Your task to perform on an android device: Open Chrome and go to settings Image 0: 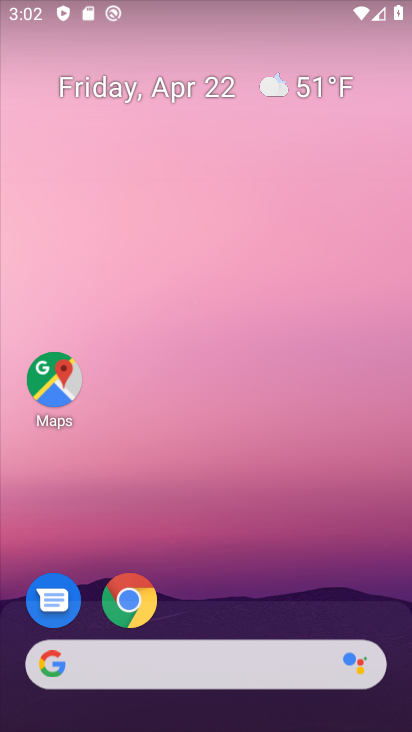
Step 0: drag from (159, 78) to (149, 21)
Your task to perform on an android device: Open Chrome and go to settings Image 1: 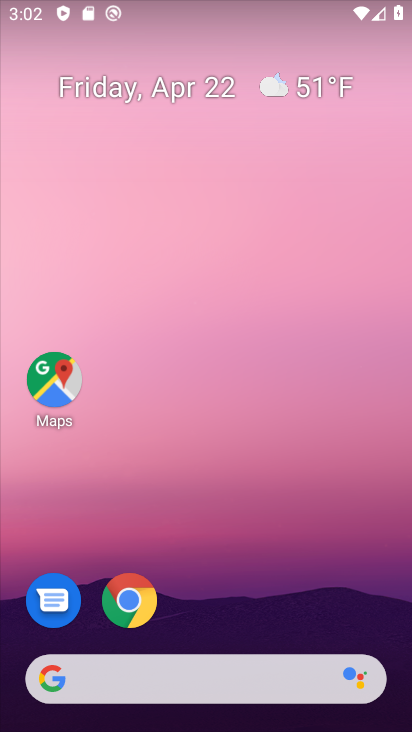
Step 1: click (110, 8)
Your task to perform on an android device: Open Chrome and go to settings Image 2: 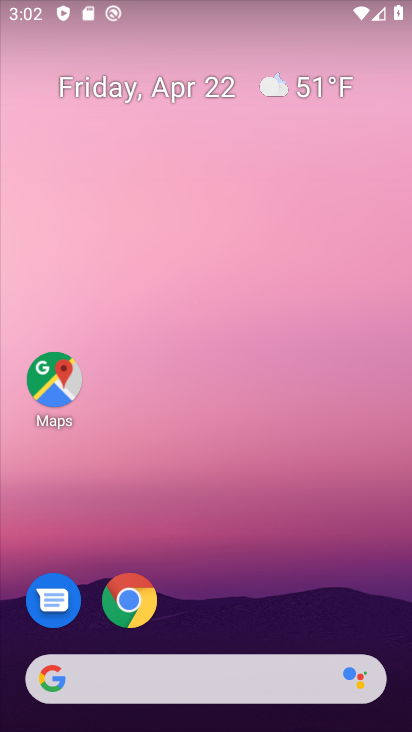
Step 2: drag from (180, 597) to (187, 13)
Your task to perform on an android device: Open Chrome and go to settings Image 3: 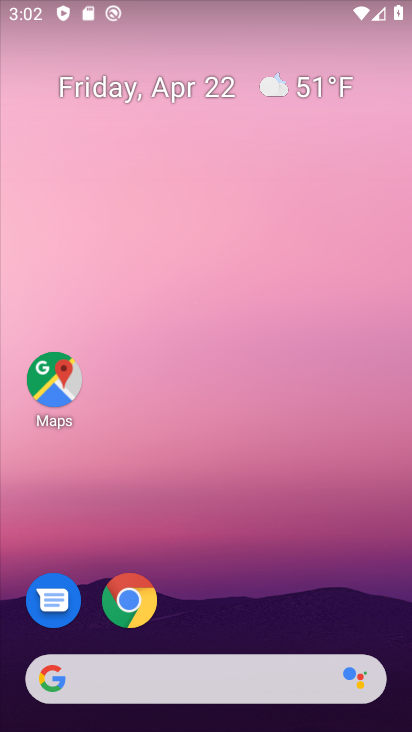
Step 3: drag from (248, 691) to (94, 66)
Your task to perform on an android device: Open Chrome and go to settings Image 4: 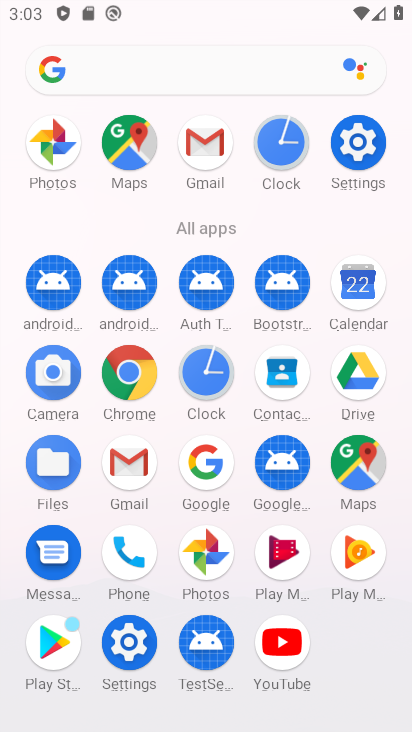
Step 4: click (123, 370)
Your task to perform on an android device: Open Chrome and go to settings Image 5: 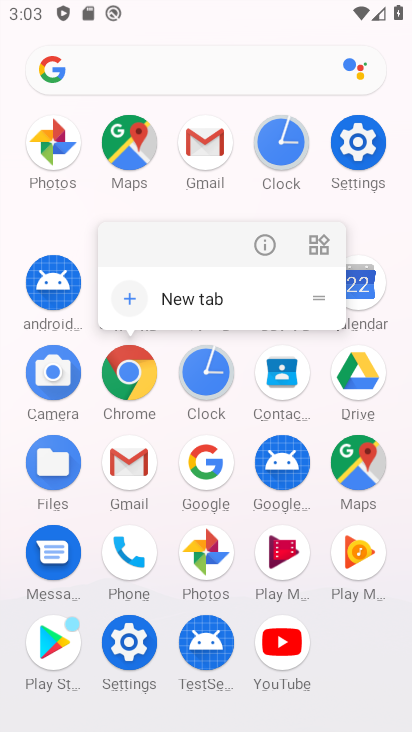
Step 5: click (126, 381)
Your task to perform on an android device: Open Chrome and go to settings Image 6: 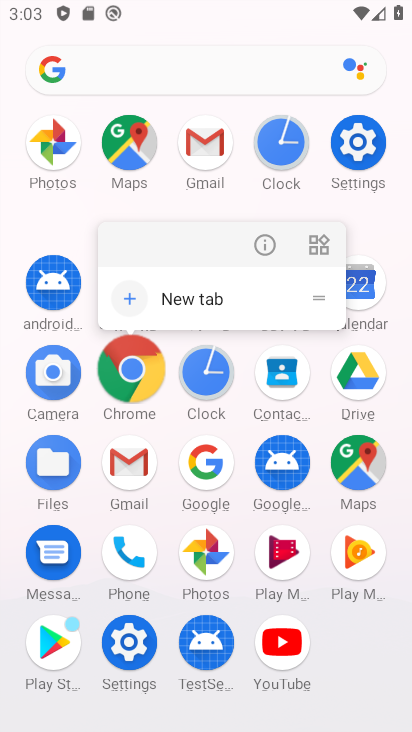
Step 6: click (134, 372)
Your task to perform on an android device: Open Chrome and go to settings Image 7: 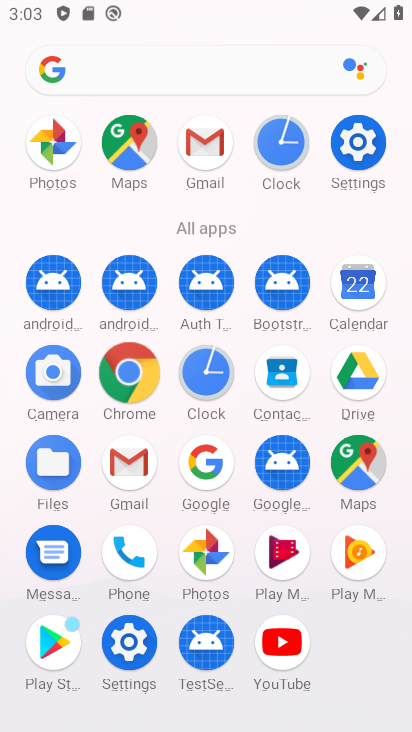
Step 7: click (136, 368)
Your task to perform on an android device: Open Chrome and go to settings Image 8: 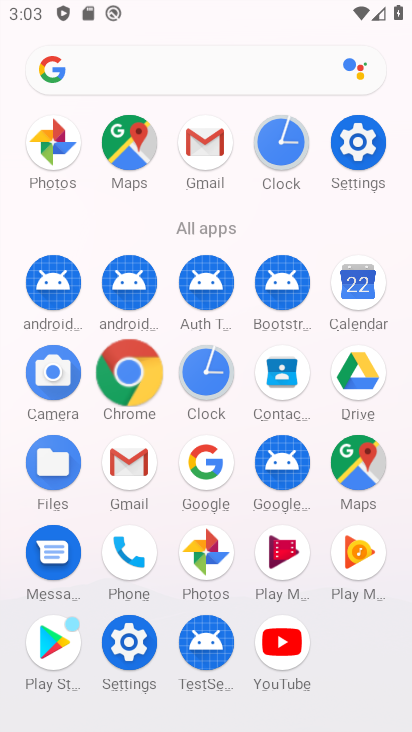
Step 8: click (119, 358)
Your task to perform on an android device: Open Chrome and go to settings Image 9: 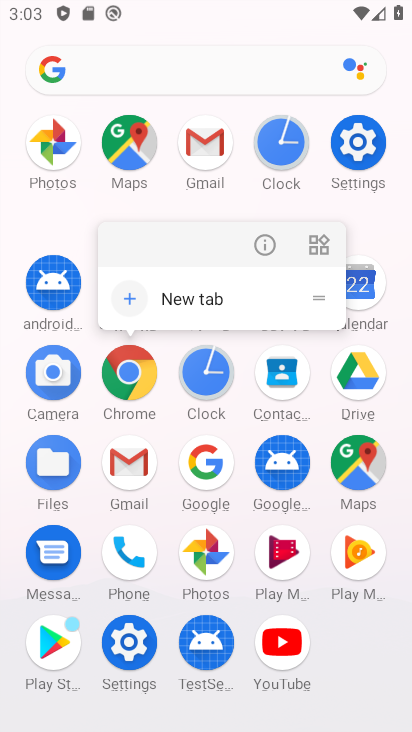
Step 9: drag from (140, 376) to (122, 345)
Your task to perform on an android device: Open Chrome and go to settings Image 10: 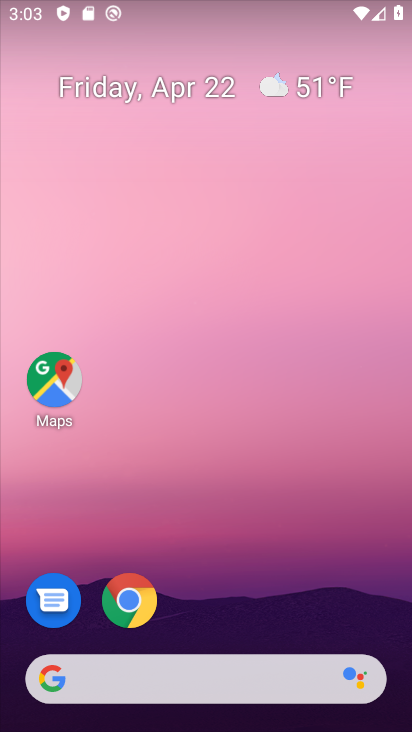
Step 10: click (165, 198)
Your task to perform on an android device: Open Chrome and go to settings Image 11: 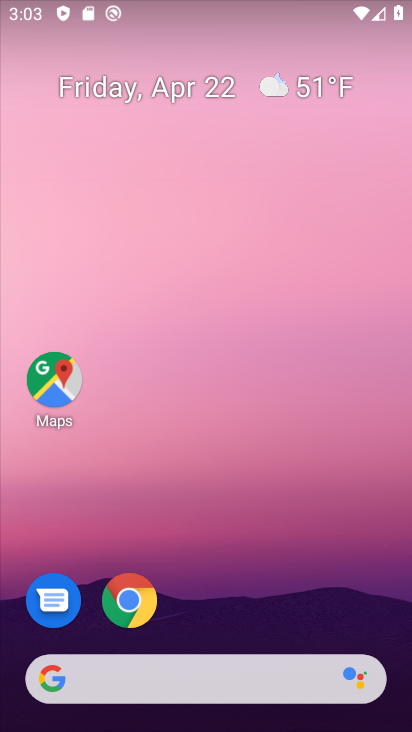
Step 11: drag from (258, 718) to (140, 130)
Your task to perform on an android device: Open Chrome and go to settings Image 12: 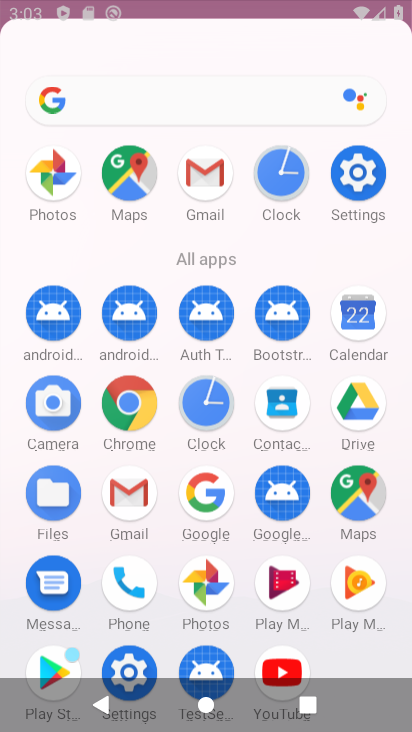
Step 12: drag from (246, 493) to (228, 35)
Your task to perform on an android device: Open Chrome and go to settings Image 13: 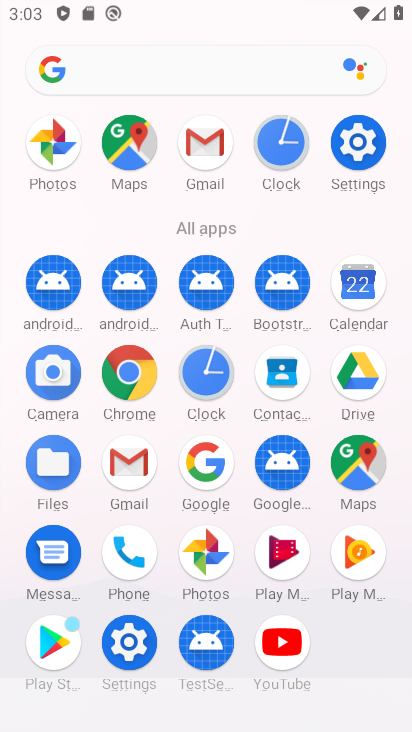
Step 13: click (122, 370)
Your task to perform on an android device: Open Chrome and go to settings Image 14: 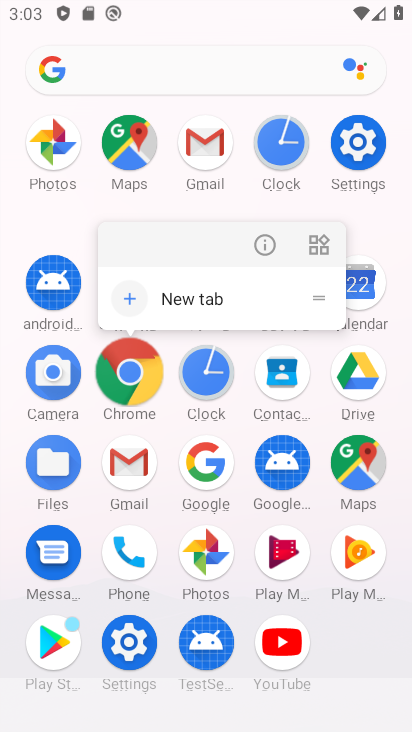
Step 14: click (124, 367)
Your task to perform on an android device: Open Chrome and go to settings Image 15: 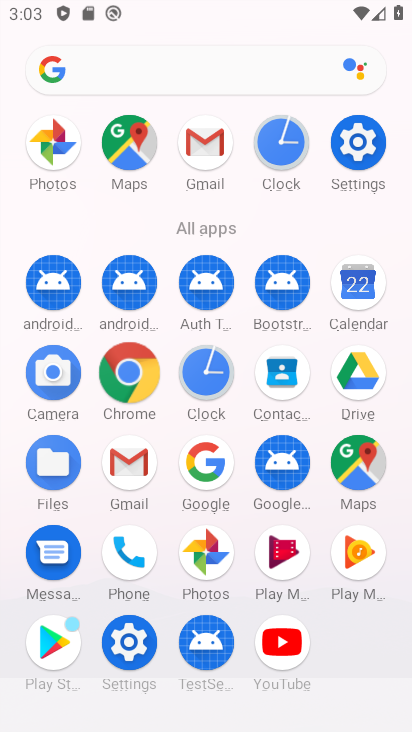
Step 15: click (125, 364)
Your task to perform on an android device: Open Chrome and go to settings Image 16: 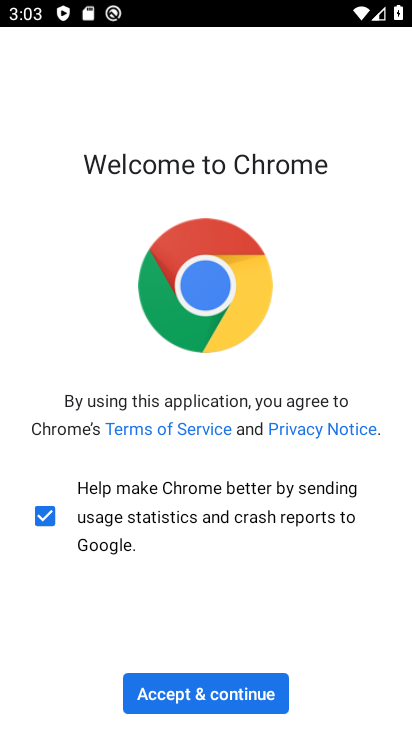
Step 16: click (215, 694)
Your task to perform on an android device: Open Chrome and go to settings Image 17: 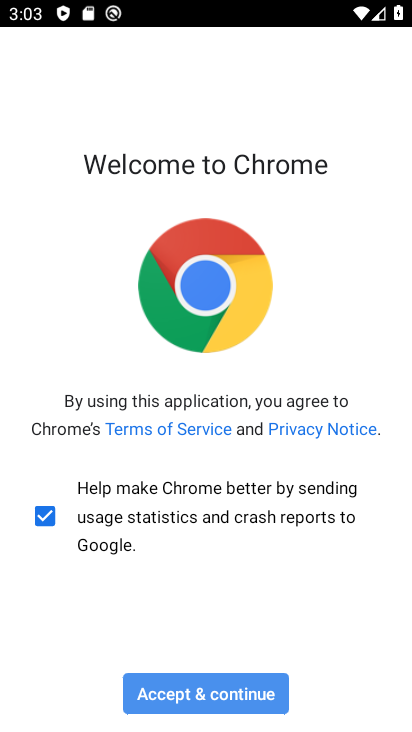
Step 17: click (213, 684)
Your task to perform on an android device: Open Chrome and go to settings Image 18: 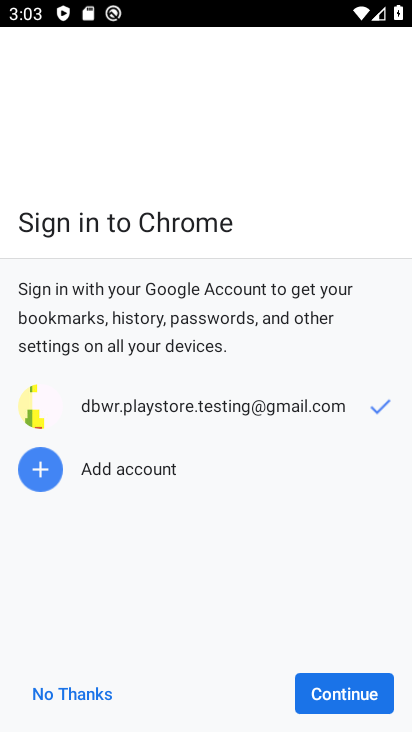
Step 18: click (213, 684)
Your task to perform on an android device: Open Chrome and go to settings Image 19: 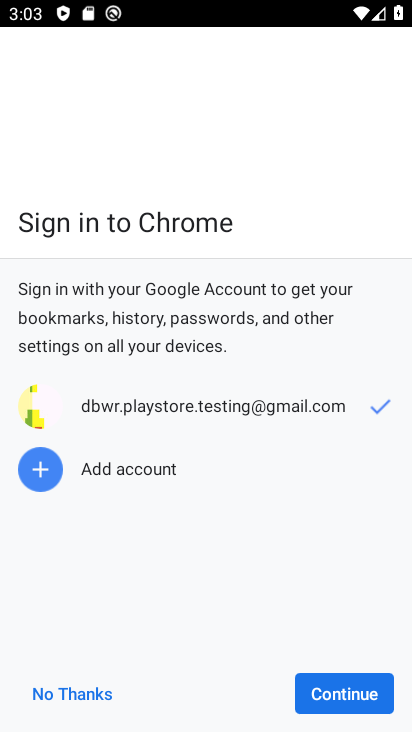
Step 19: click (343, 699)
Your task to perform on an android device: Open Chrome and go to settings Image 20: 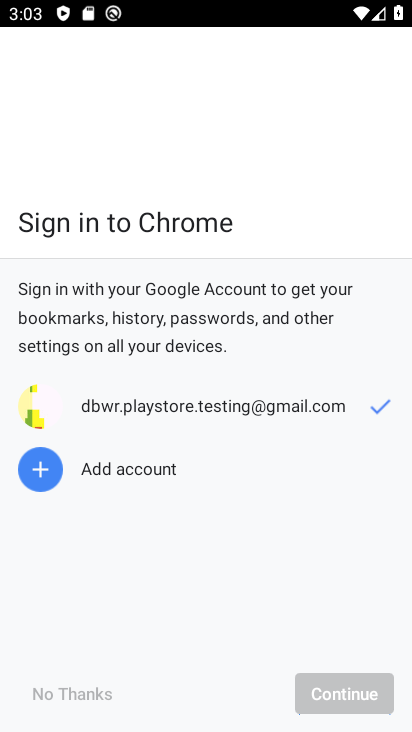
Step 20: click (343, 699)
Your task to perform on an android device: Open Chrome and go to settings Image 21: 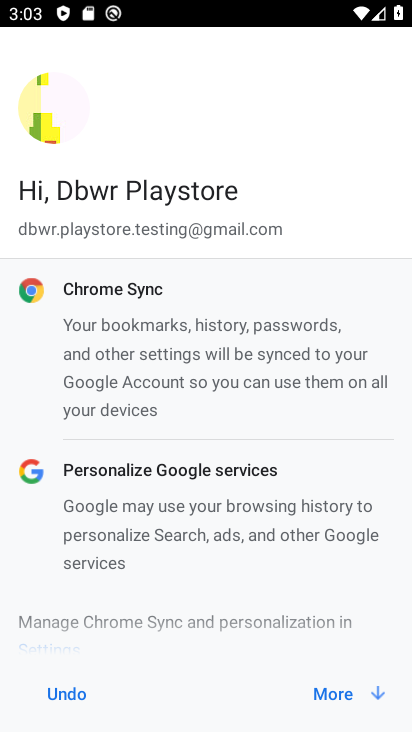
Step 21: click (343, 699)
Your task to perform on an android device: Open Chrome and go to settings Image 22: 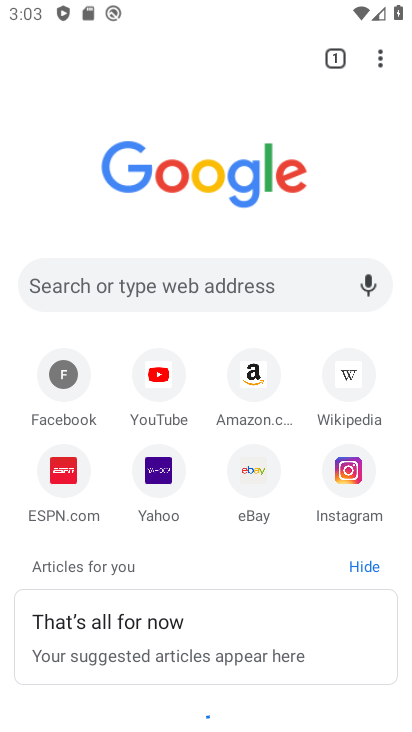
Step 22: drag from (377, 50) to (178, 500)
Your task to perform on an android device: Open Chrome and go to settings Image 23: 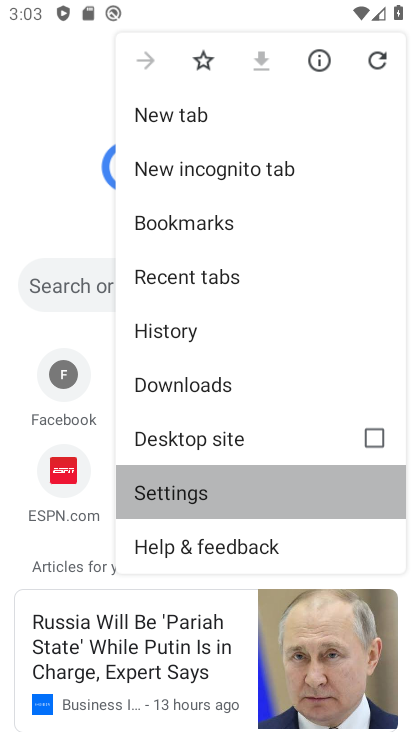
Step 23: click (158, 490)
Your task to perform on an android device: Open Chrome and go to settings Image 24: 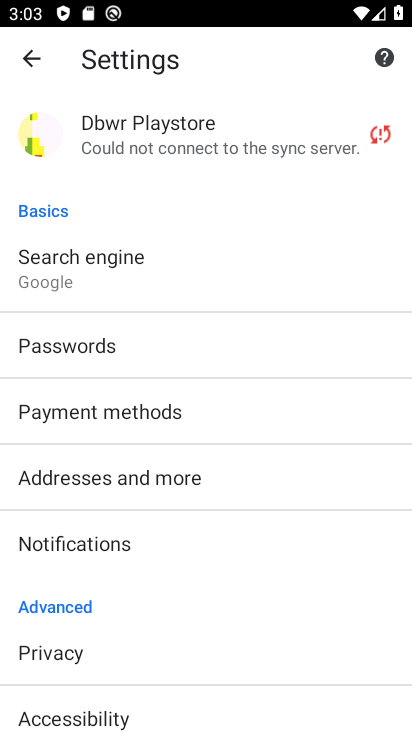
Step 24: task complete